Your task to perform on an android device: see creations saved in the google photos Image 0: 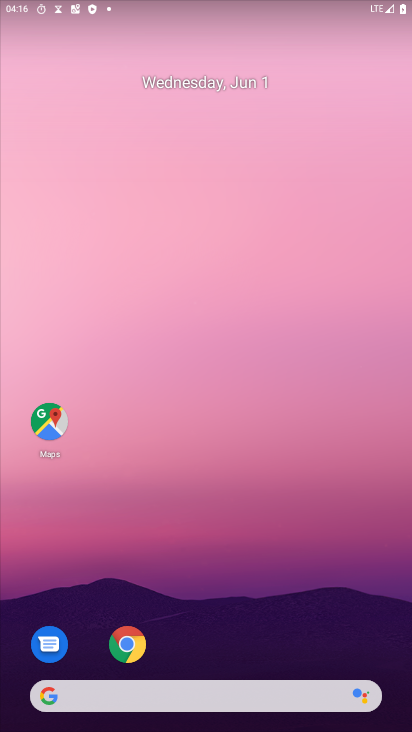
Step 0: drag from (236, 655) to (217, 367)
Your task to perform on an android device: see creations saved in the google photos Image 1: 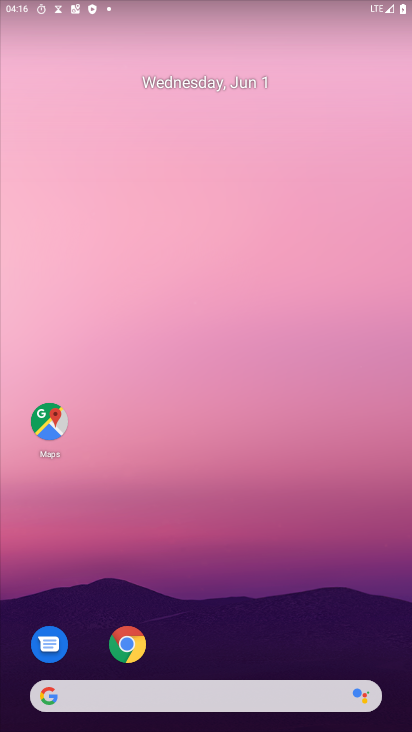
Step 1: drag from (209, 644) to (220, 287)
Your task to perform on an android device: see creations saved in the google photos Image 2: 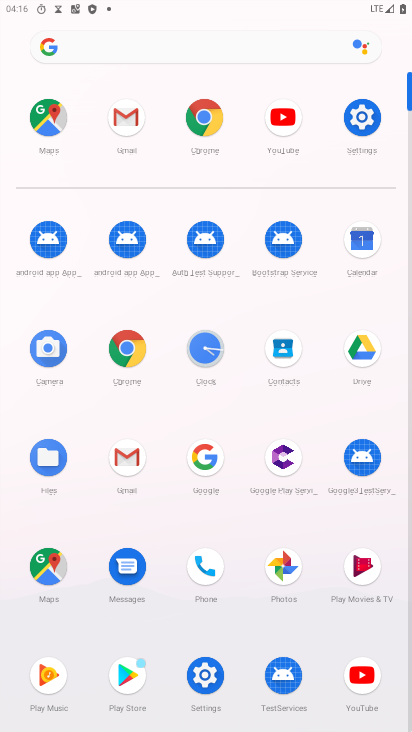
Step 2: click (291, 568)
Your task to perform on an android device: see creations saved in the google photos Image 3: 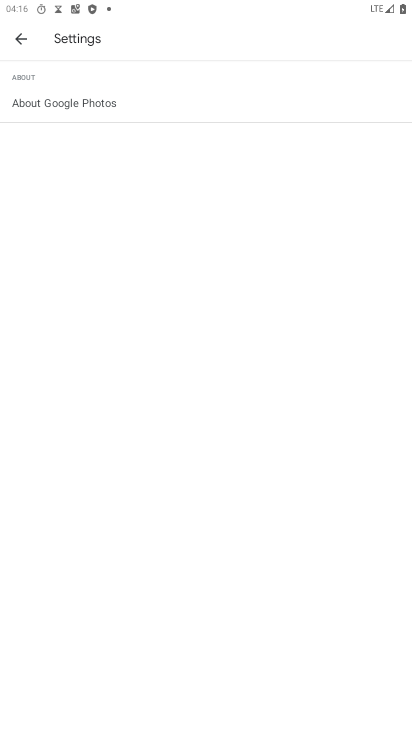
Step 3: click (18, 37)
Your task to perform on an android device: see creations saved in the google photos Image 4: 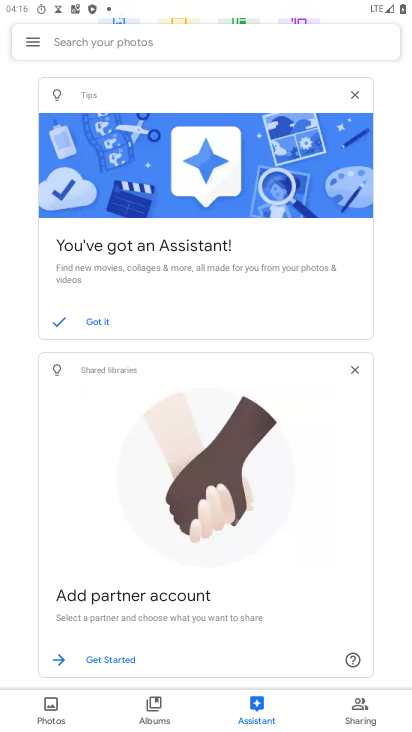
Step 4: click (175, 41)
Your task to perform on an android device: see creations saved in the google photos Image 5: 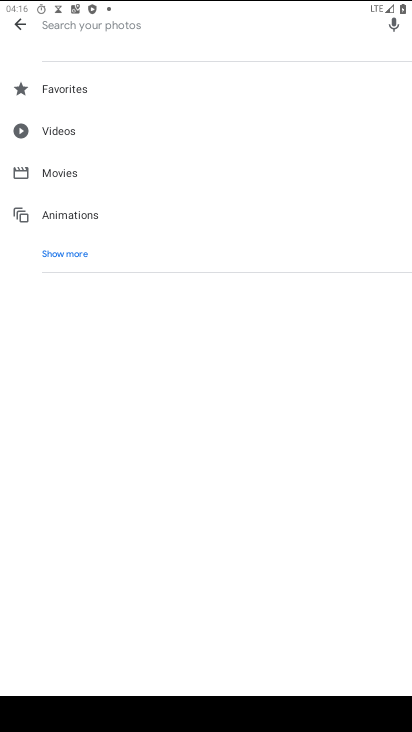
Step 5: click (71, 252)
Your task to perform on an android device: see creations saved in the google photos Image 6: 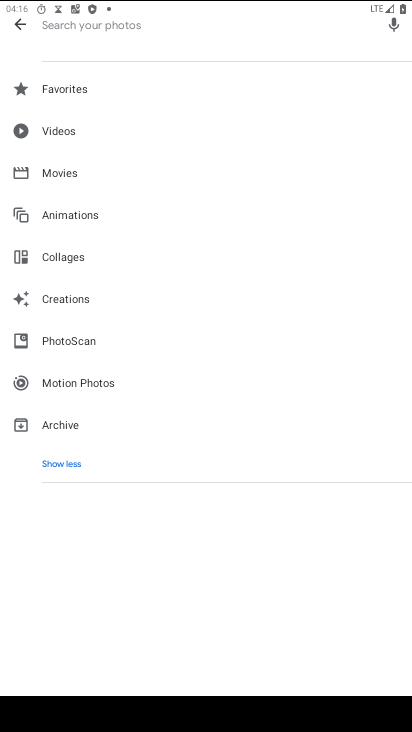
Step 6: click (65, 299)
Your task to perform on an android device: see creations saved in the google photos Image 7: 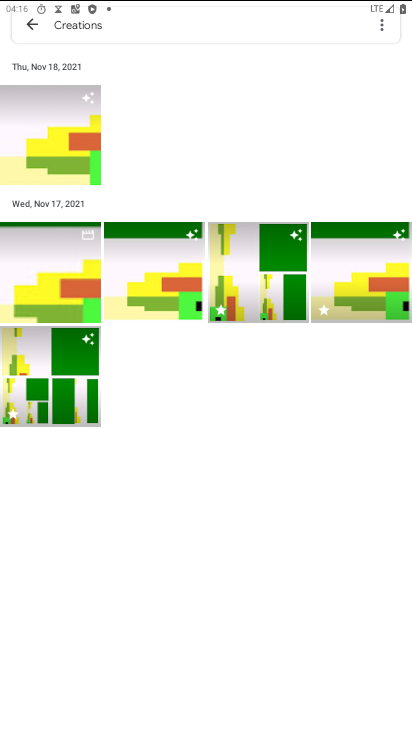
Step 7: task complete